Your task to perform on an android device: Go to sound settings Image 0: 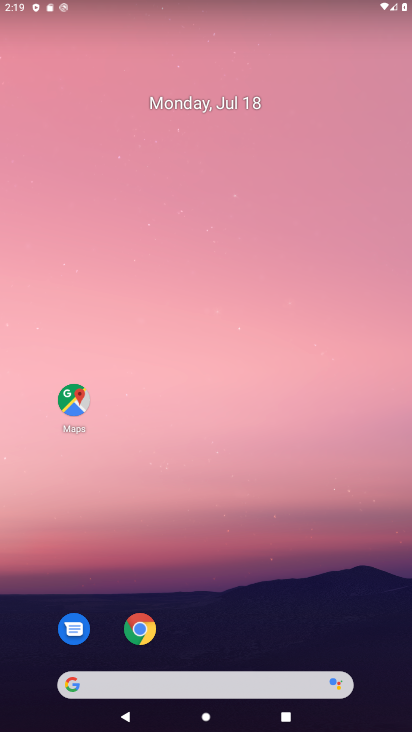
Step 0: drag from (217, 673) to (202, 130)
Your task to perform on an android device: Go to sound settings Image 1: 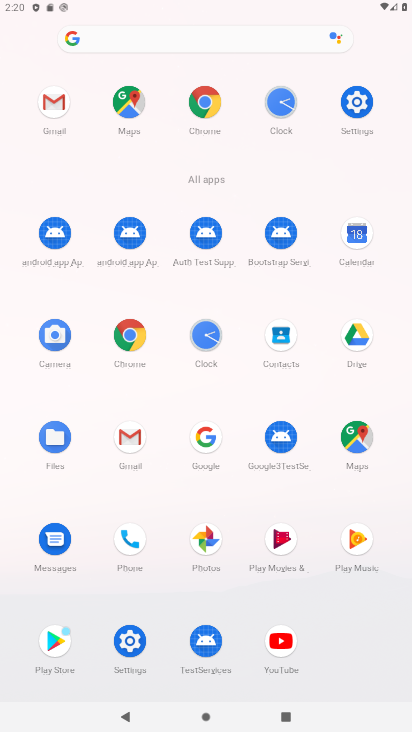
Step 1: click (344, 106)
Your task to perform on an android device: Go to sound settings Image 2: 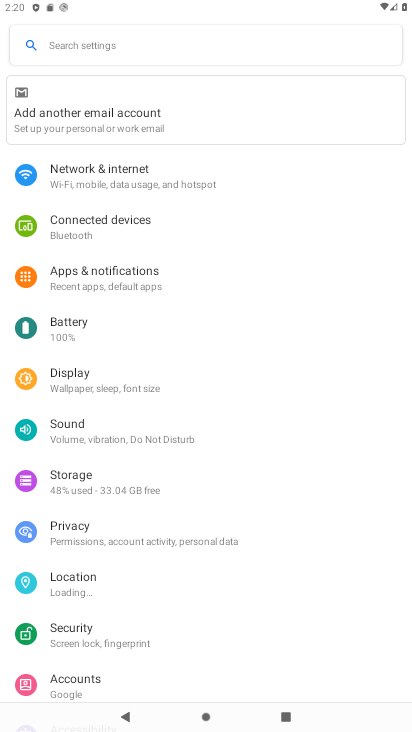
Step 2: click (71, 442)
Your task to perform on an android device: Go to sound settings Image 3: 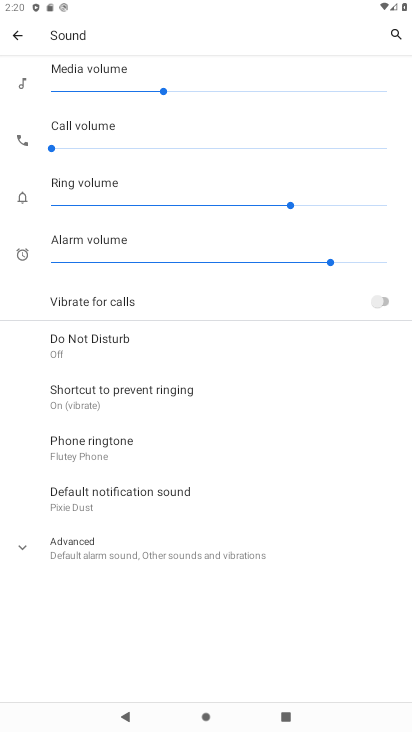
Step 3: click (59, 550)
Your task to perform on an android device: Go to sound settings Image 4: 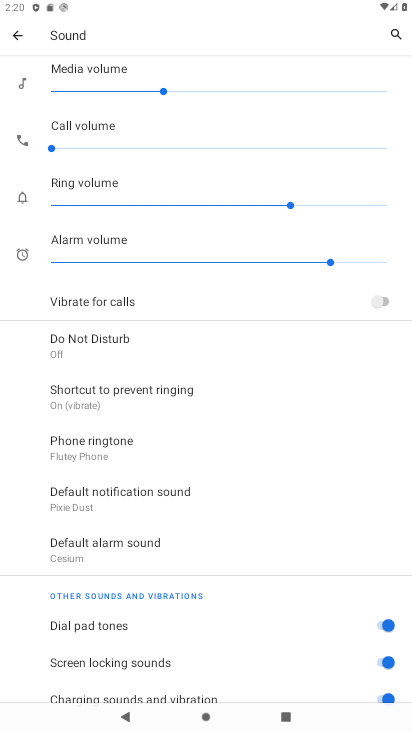
Step 4: task complete